Your task to perform on an android device: What's the price of the Vizio TV? Image 0: 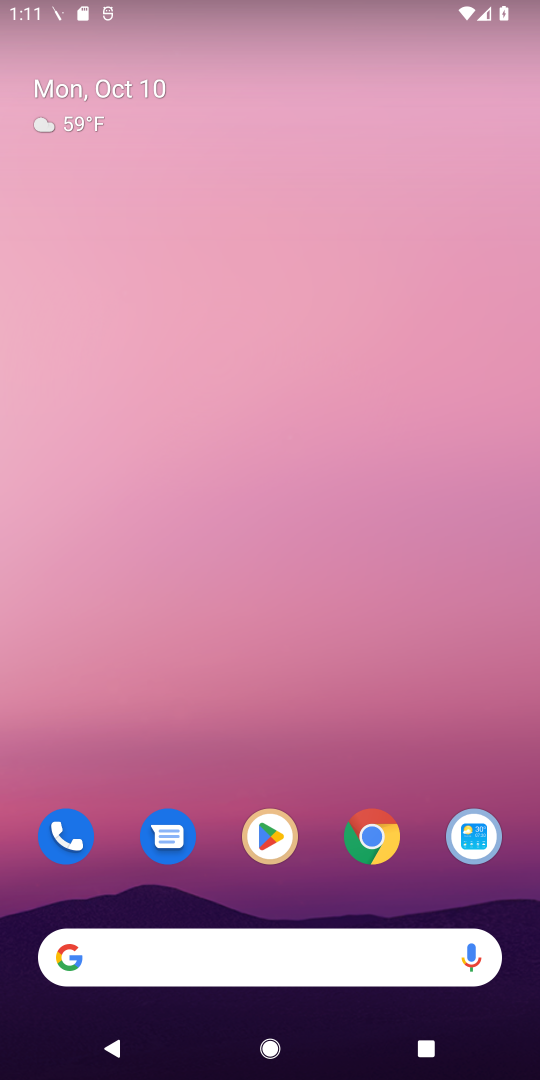
Step 0: click (390, 841)
Your task to perform on an android device: What's the price of the Vizio TV? Image 1: 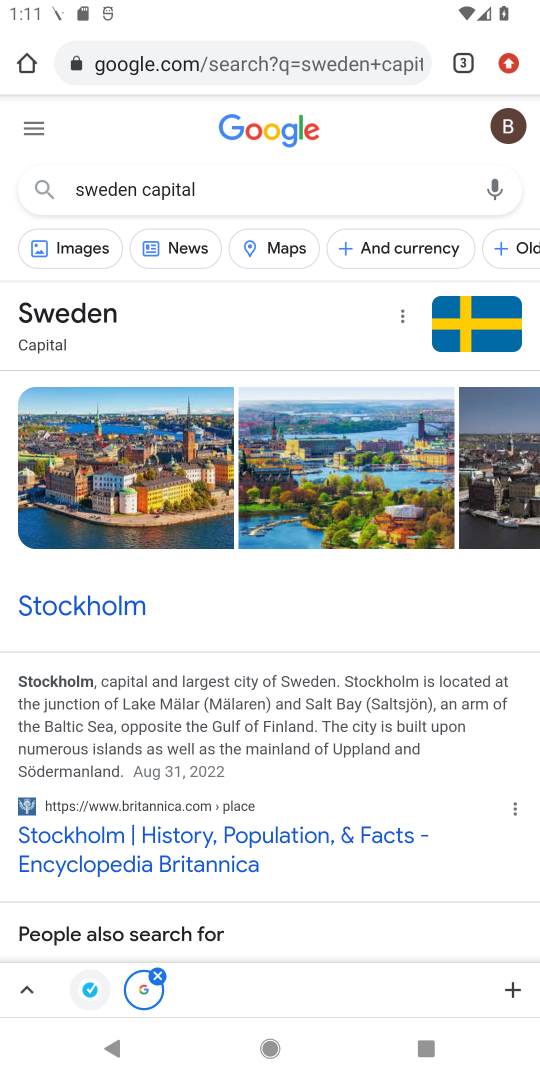
Step 1: click (271, 63)
Your task to perform on an android device: What's the price of the Vizio TV? Image 2: 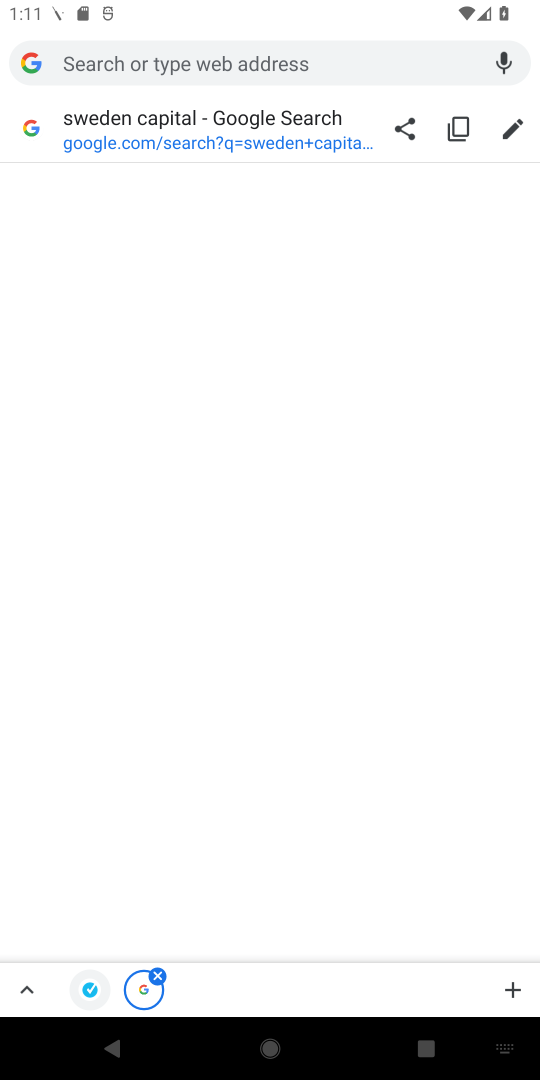
Step 2: type "price of the Vizio TV"
Your task to perform on an android device: What's the price of the Vizio TV? Image 3: 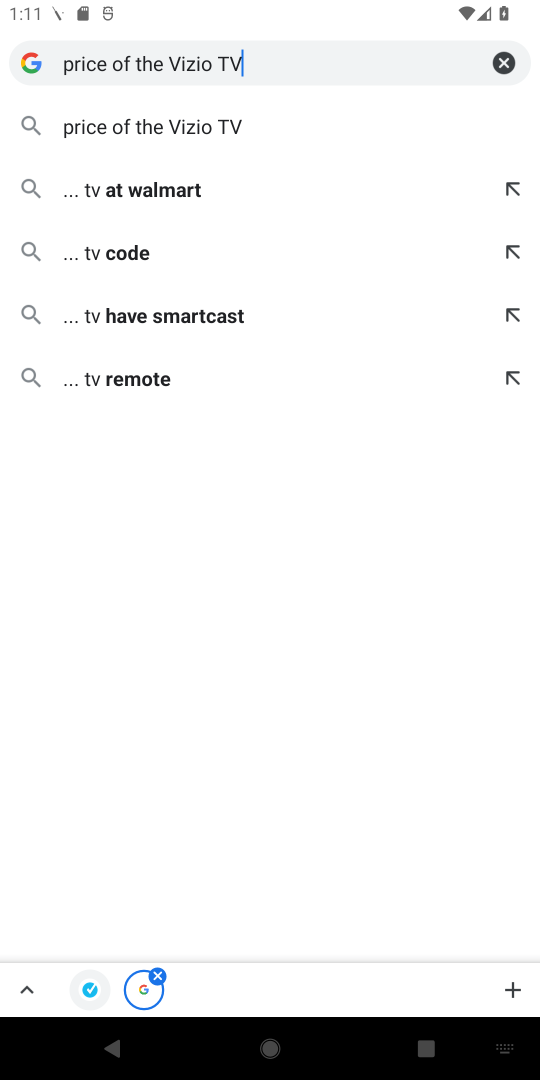
Step 3: click (267, 118)
Your task to perform on an android device: What's the price of the Vizio TV? Image 4: 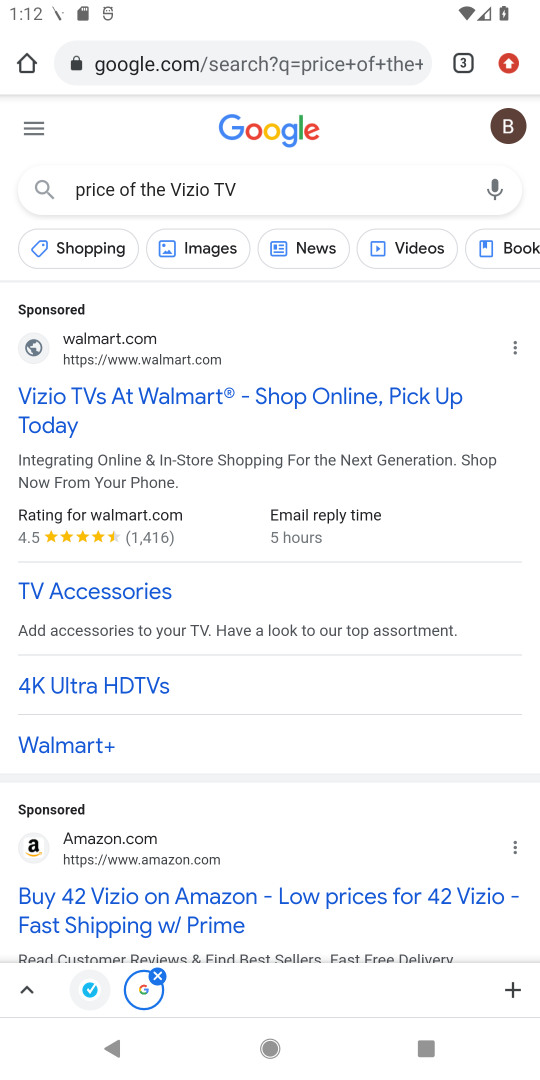
Step 4: click (90, 411)
Your task to perform on an android device: What's the price of the Vizio TV? Image 5: 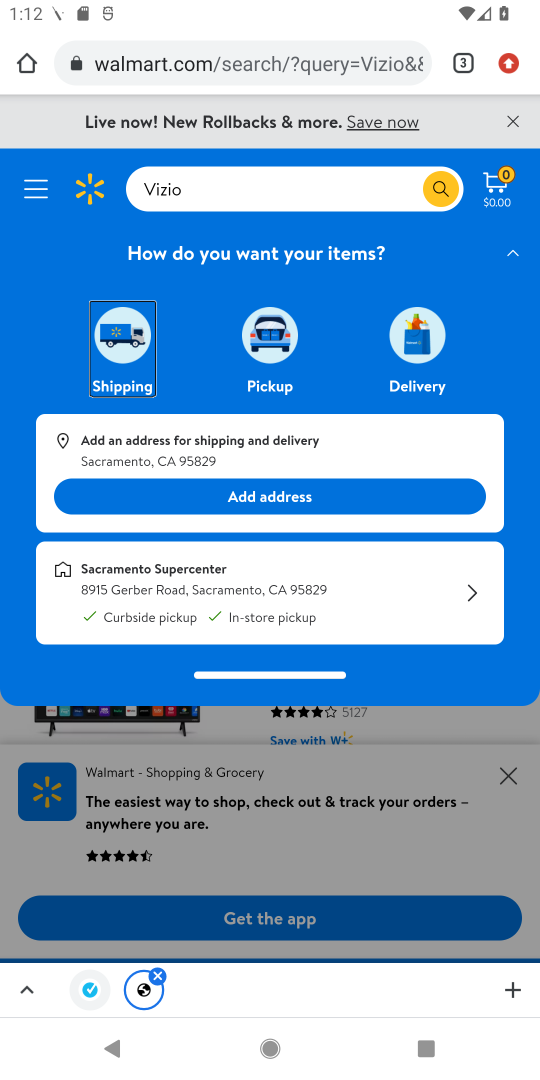
Step 5: drag from (383, 672) to (347, 447)
Your task to perform on an android device: What's the price of the Vizio TV? Image 6: 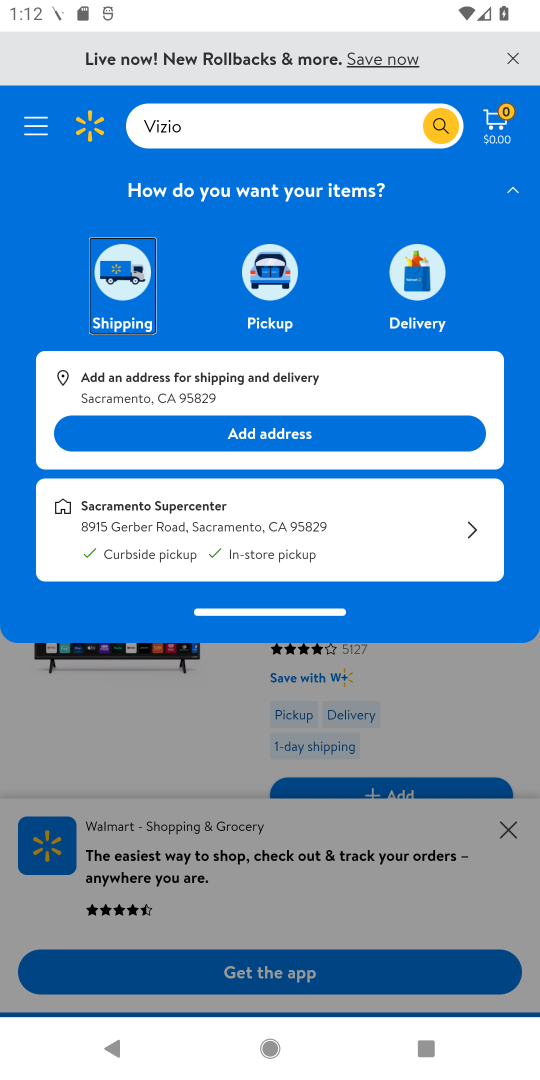
Step 6: click (448, 761)
Your task to perform on an android device: What's the price of the Vizio TV? Image 7: 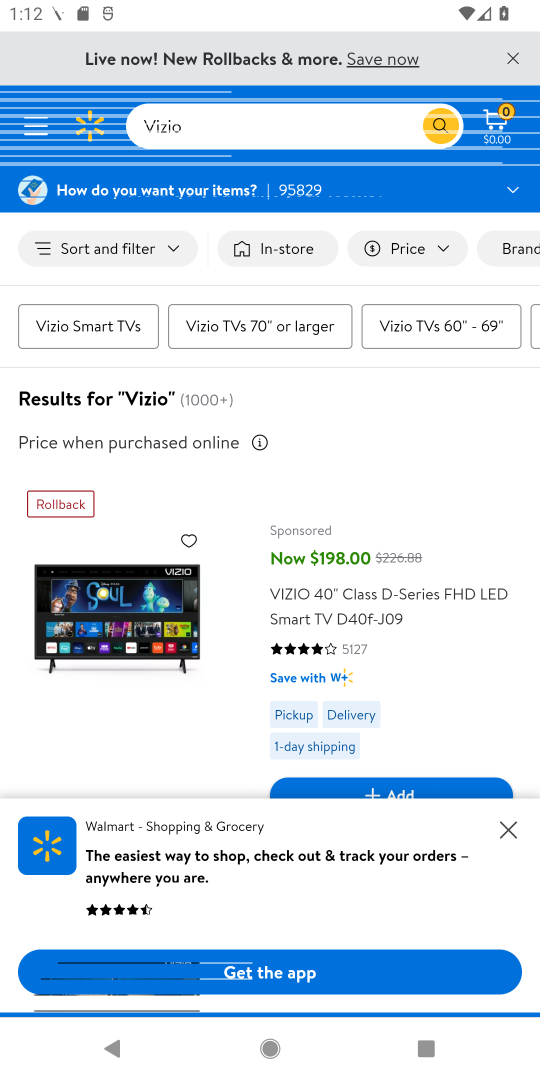
Step 7: click (510, 832)
Your task to perform on an android device: What's the price of the Vizio TV? Image 8: 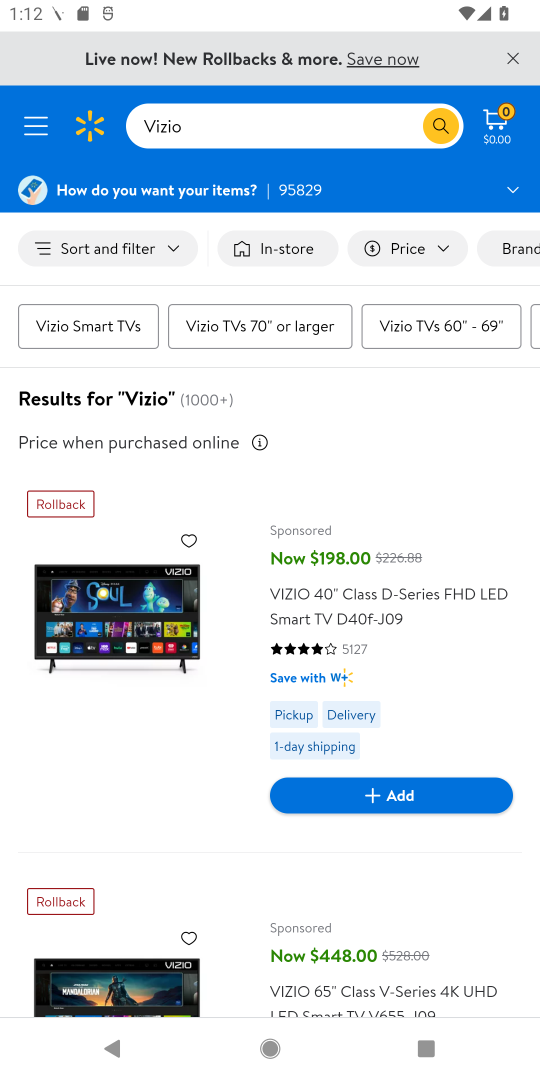
Step 8: task complete